Your task to perform on an android device: What's the weather going to be tomorrow? Image 0: 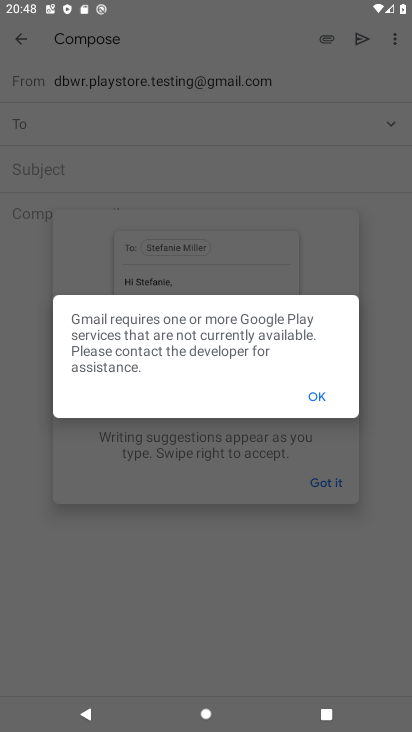
Step 0: press home button
Your task to perform on an android device: What's the weather going to be tomorrow? Image 1: 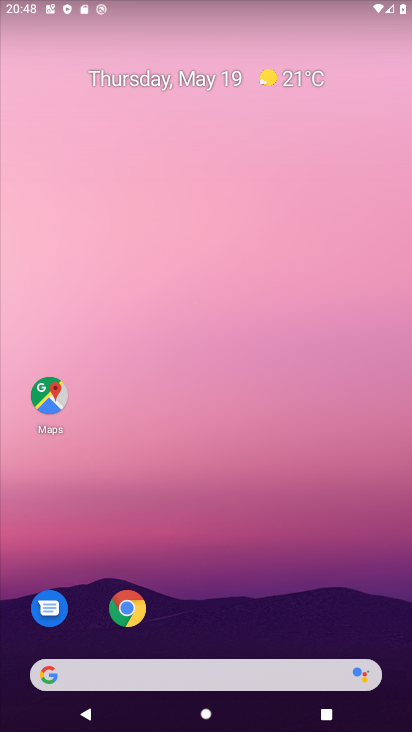
Step 1: drag from (250, 480) to (221, 85)
Your task to perform on an android device: What's the weather going to be tomorrow? Image 2: 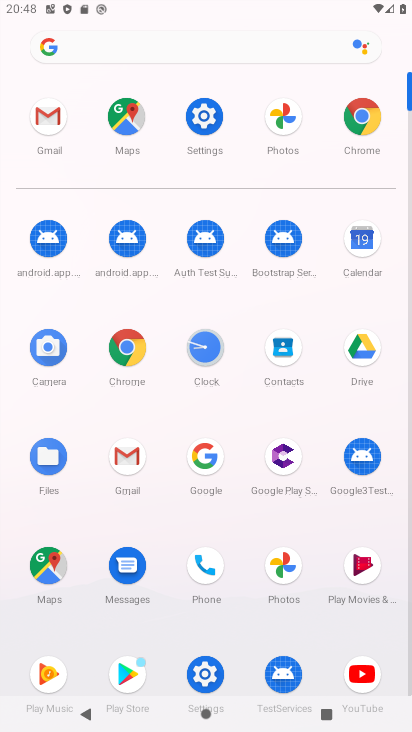
Step 2: click (64, 42)
Your task to perform on an android device: What's the weather going to be tomorrow? Image 3: 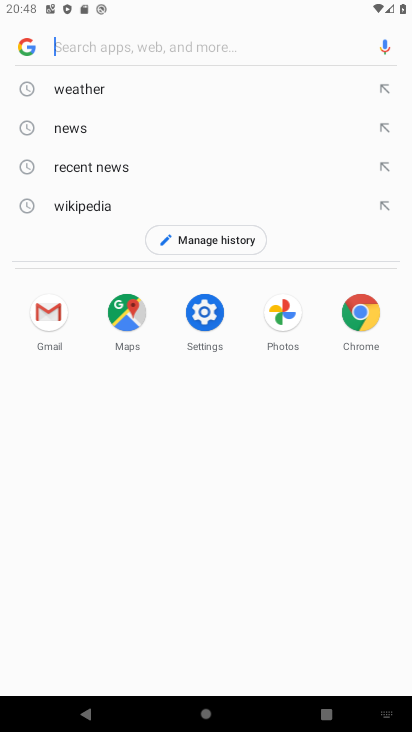
Step 3: click (86, 87)
Your task to perform on an android device: What's the weather going to be tomorrow? Image 4: 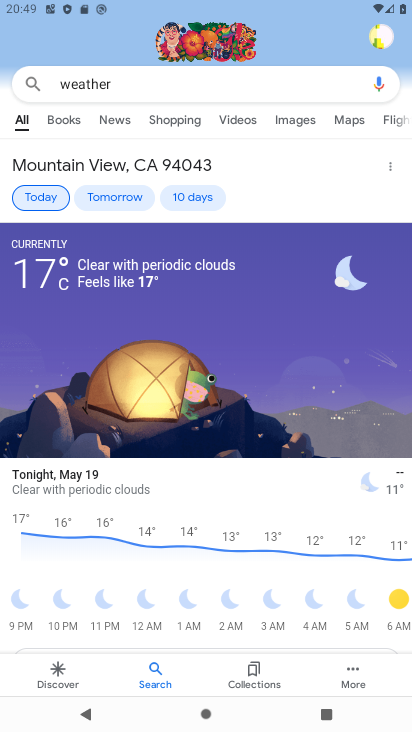
Step 4: click (98, 200)
Your task to perform on an android device: What's the weather going to be tomorrow? Image 5: 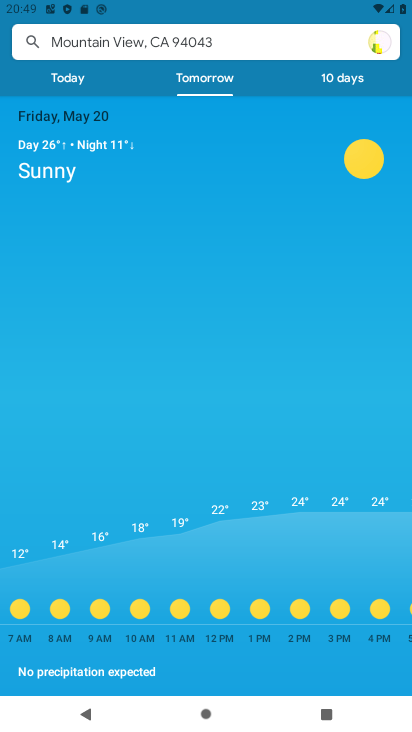
Step 5: click (237, 226)
Your task to perform on an android device: What's the weather going to be tomorrow? Image 6: 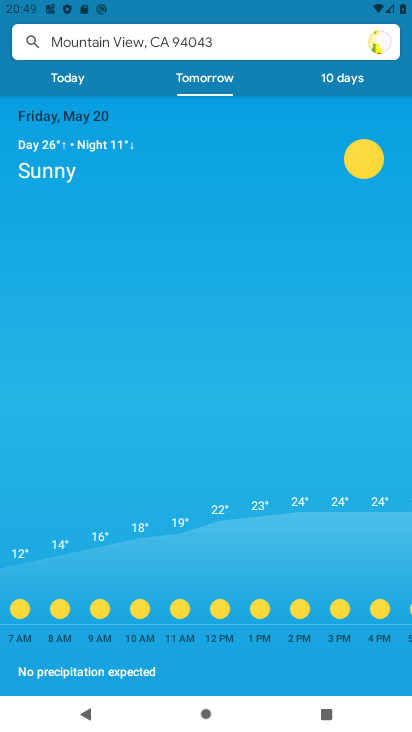
Step 6: task complete